Your task to perform on an android device: What's the weather today? Image 0: 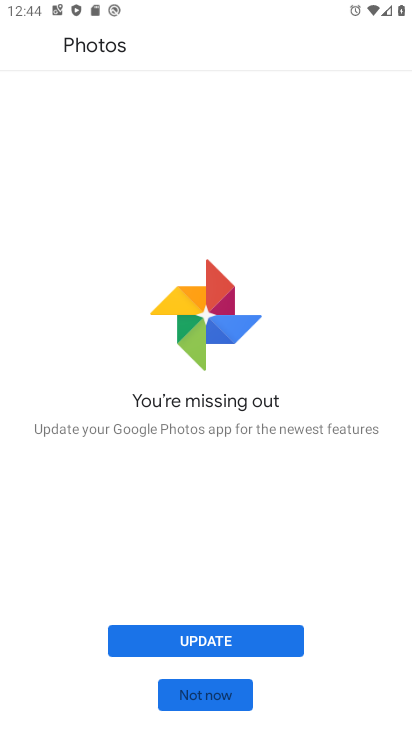
Step 0: press home button
Your task to perform on an android device: What's the weather today? Image 1: 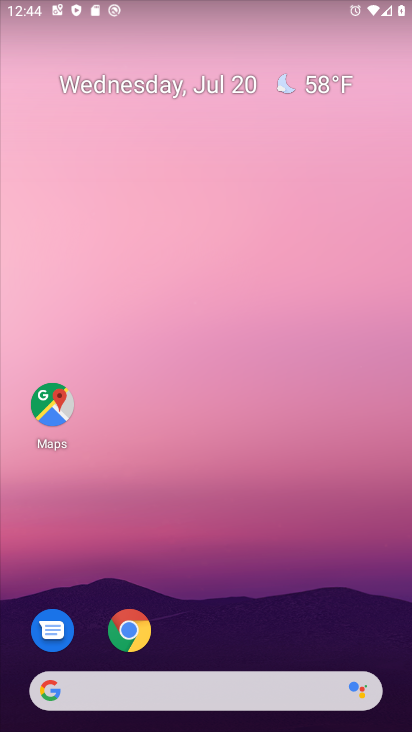
Step 1: click (137, 688)
Your task to perform on an android device: What's the weather today? Image 2: 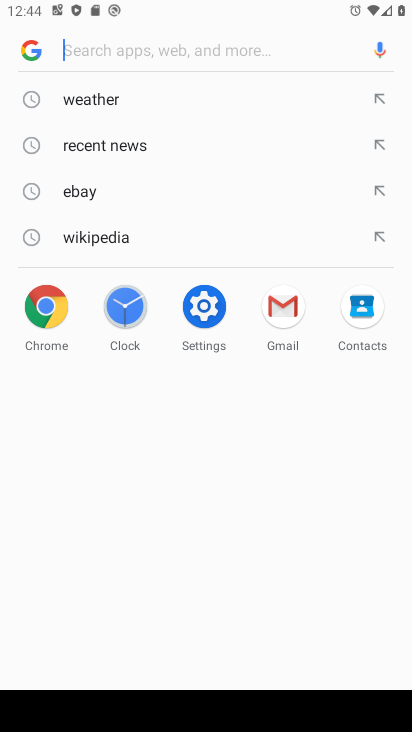
Step 2: click (95, 90)
Your task to perform on an android device: What's the weather today? Image 3: 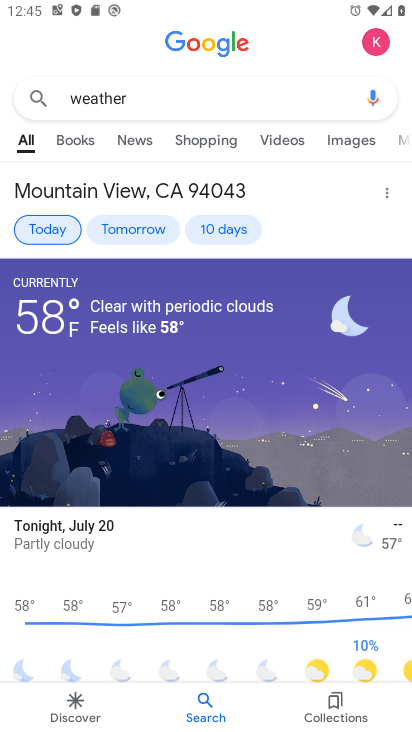
Step 3: task complete